Your task to perform on an android device: toggle sleep mode Image 0: 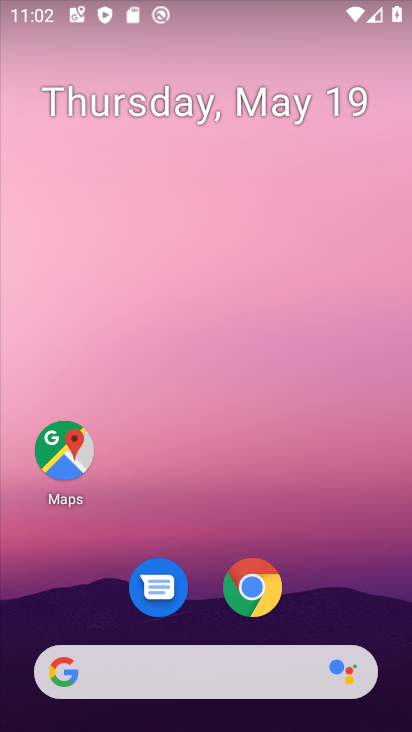
Step 0: drag from (266, 660) to (187, 106)
Your task to perform on an android device: toggle sleep mode Image 1: 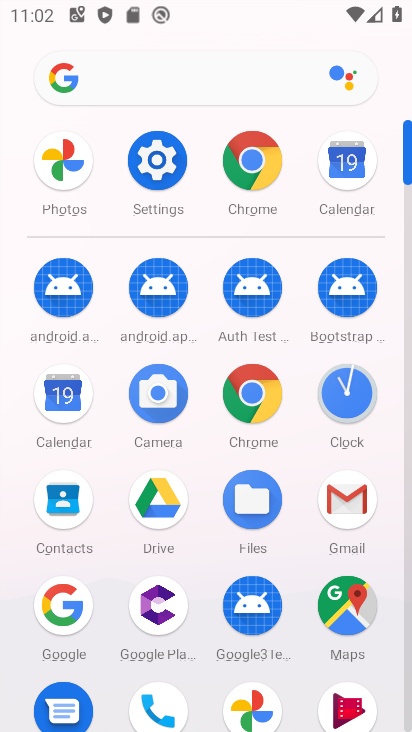
Step 1: click (171, 204)
Your task to perform on an android device: toggle sleep mode Image 2: 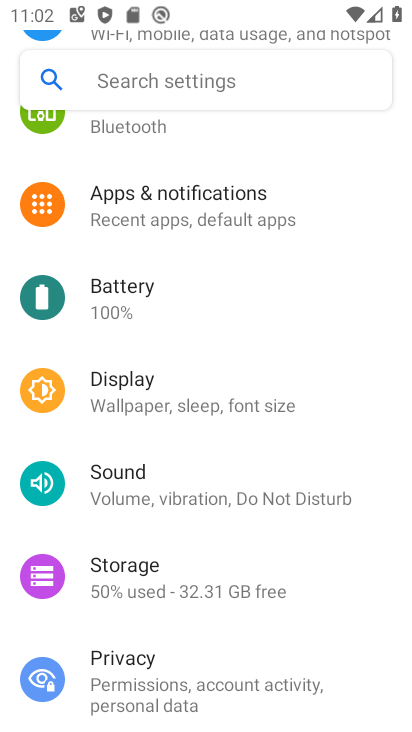
Step 2: click (123, 413)
Your task to perform on an android device: toggle sleep mode Image 3: 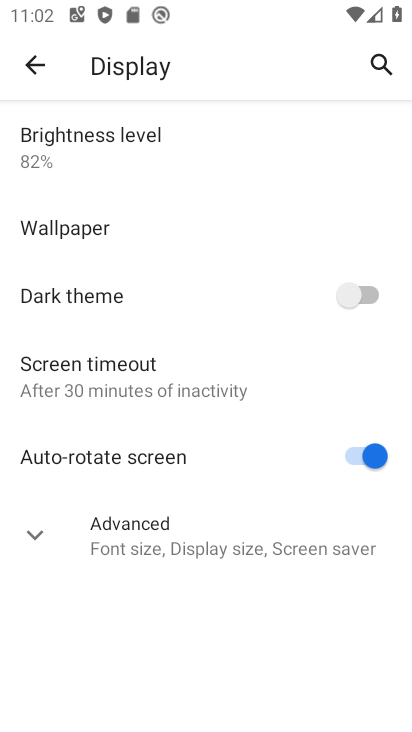
Step 3: click (153, 538)
Your task to perform on an android device: toggle sleep mode Image 4: 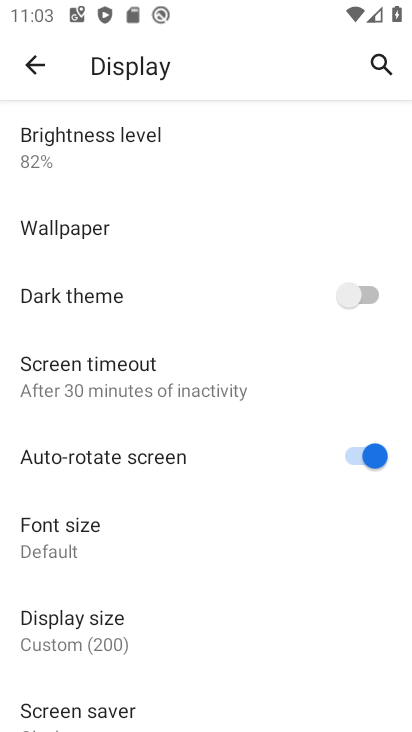
Step 4: task complete